Your task to perform on an android device: Check the weather Image 0: 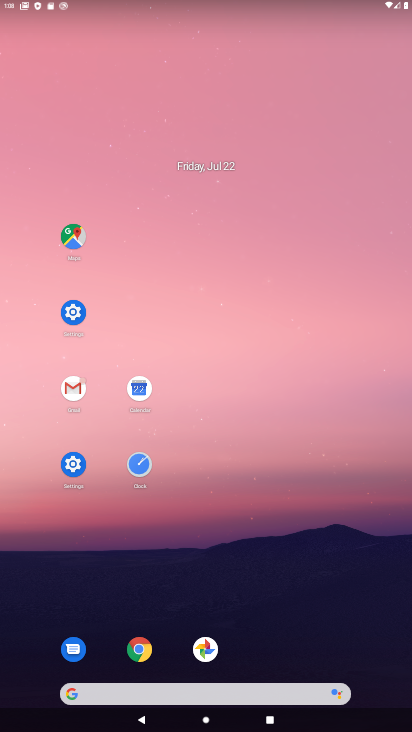
Step 0: click (177, 695)
Your task to perform on an android device: Check the weather Image 1: 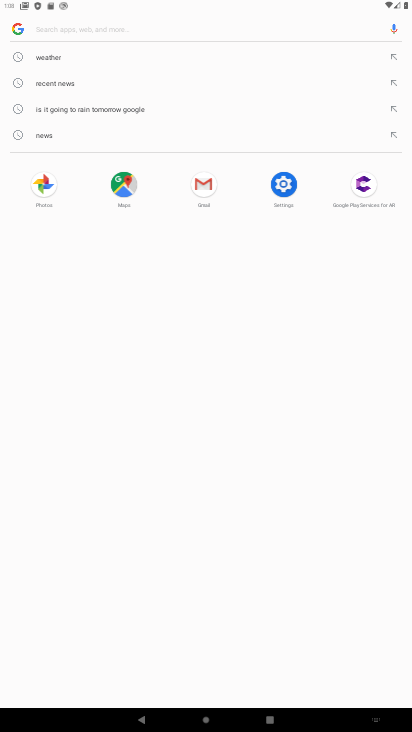
Step 1: click (41, 47)
Your task to perform on an android device: Check the weather Image 2: 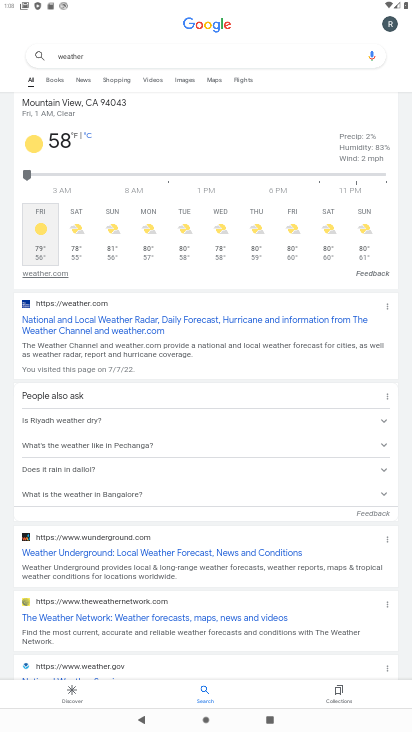
Step 2: task complete